Your task to perform on an android device: Clear all items from cart on amazon. Search for bose soundlink mini on amazon, select the first entry, and add it to the cart. Image 0: 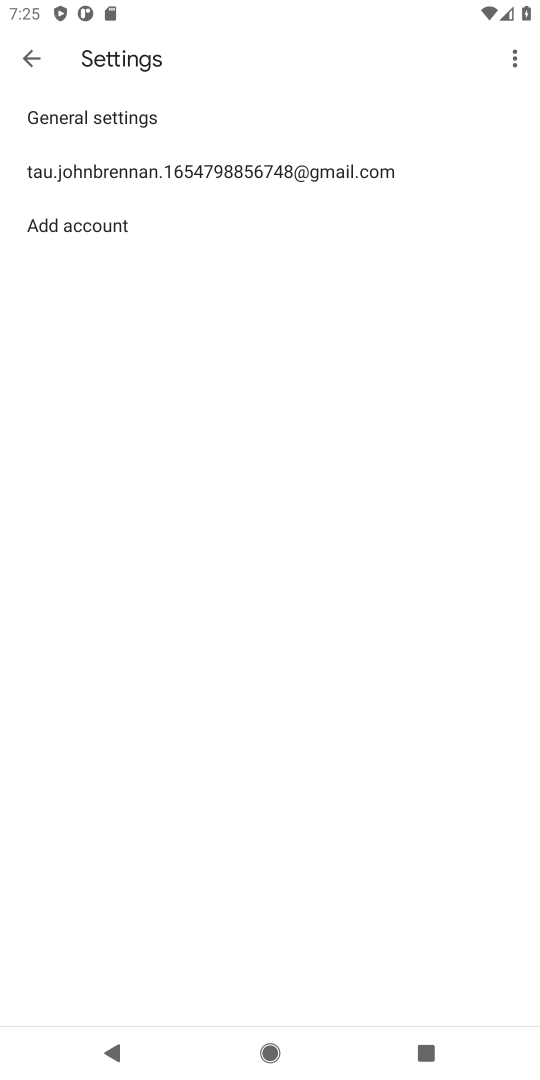
Step 0: press home button
Your task to perform on an android device: Clear all items from cart on amazon. Search for bose soundlink mini on amazon, select the first entry, and add it to the cart. Image 1: 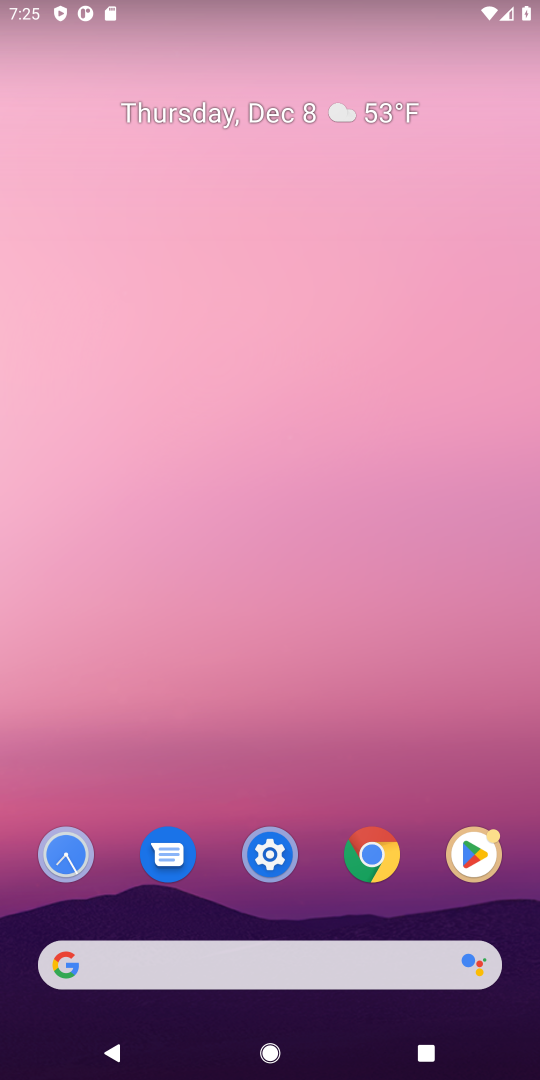
Step 1: click (100, 973)
Your task to perform on an android device: Clear all items from cart on amazon. Search for bose soundlink mini on amazon, select the first entry, and add it to the cart. Image 2: 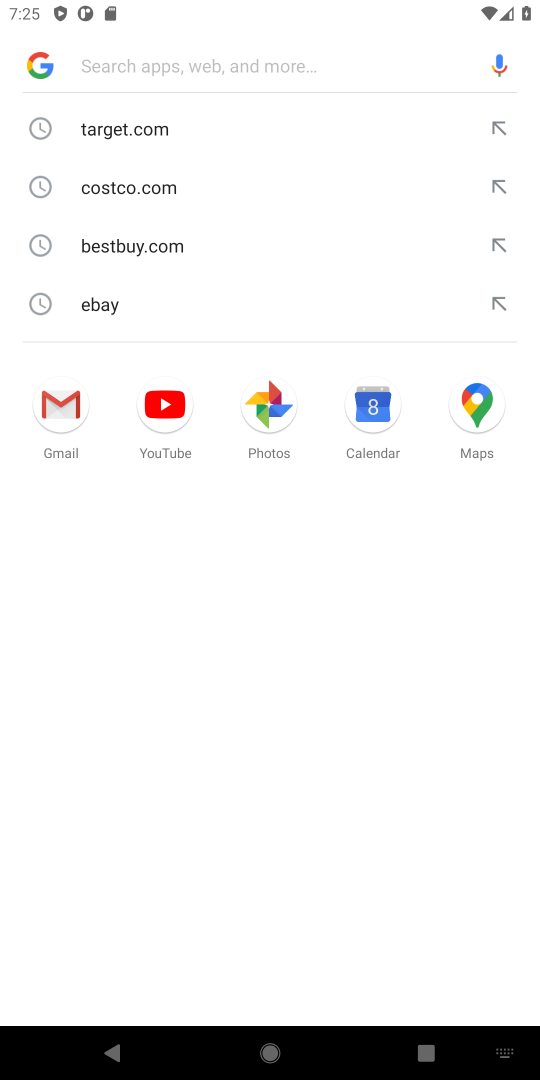
Step 2: type " amazon"
Your task to perform on an android device: Clear all items from cart on amazon. Search for bose soundlink mini on amazon, select the first entry, and add it to the cart. Image 3: 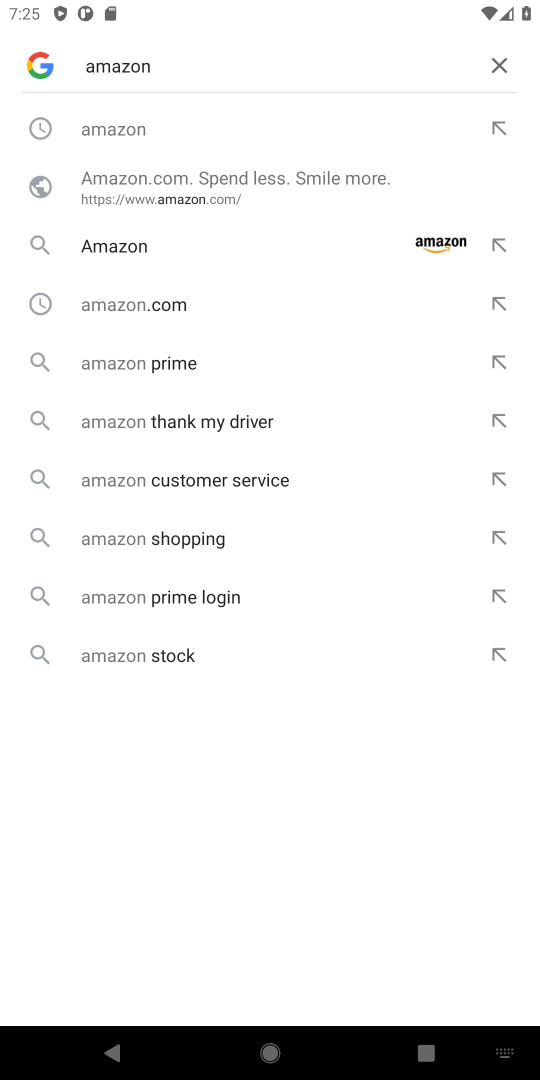
Step 3: press enter
Your task to perform on an android device: Clear all items from cart on amazon. Search for bose soundlink mini on amazon, select the first entry, and add it to the cart. Image 4: 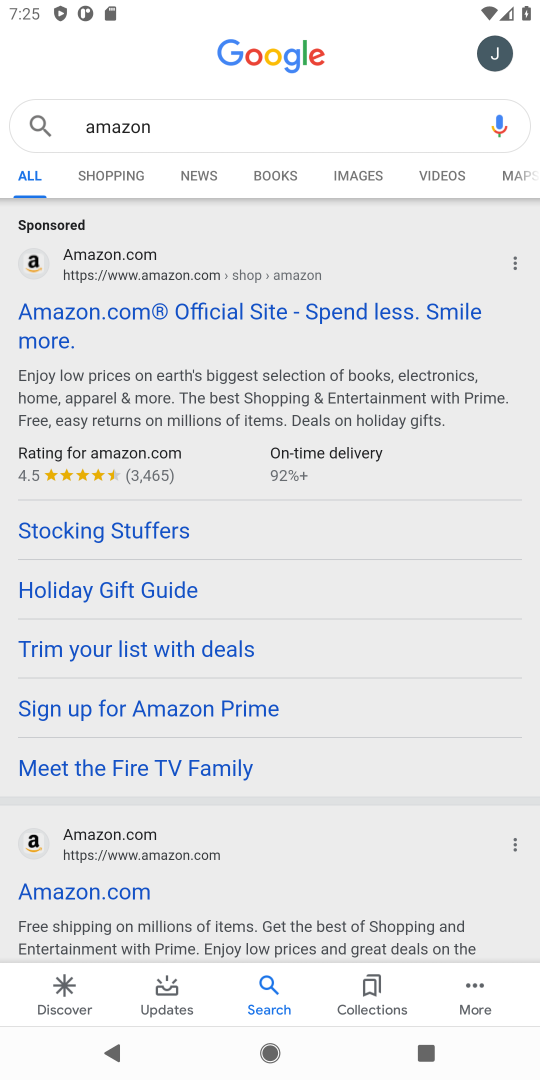
Step 4: click (393, 306)
Your task to perform on an android device: Clear all items from cart on amazon. Search for bose soundlink mini on amazon, select the first entry, and add it to the cart. Image 5: 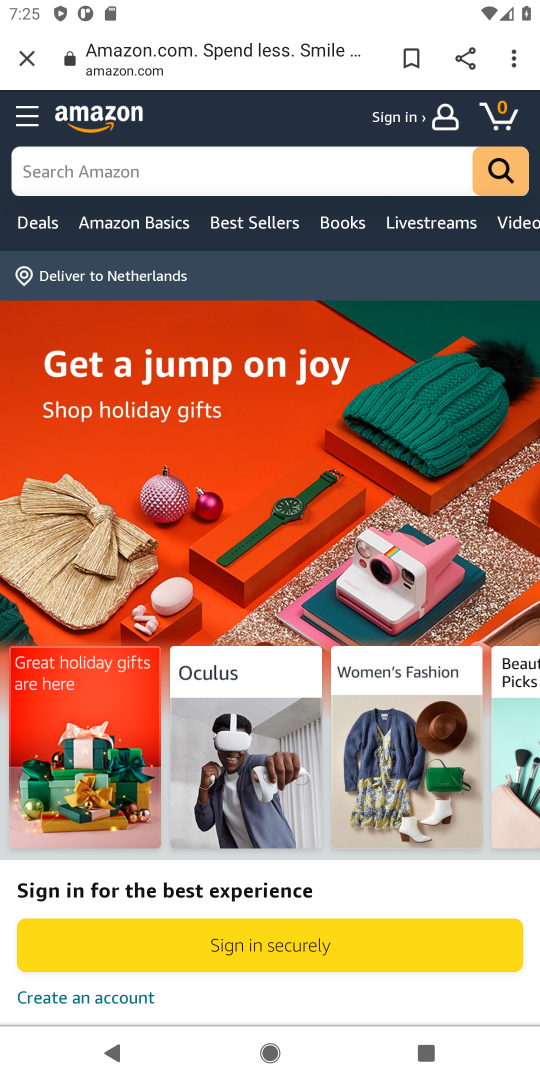
Step 5: click (498, 109)
Your task to perform on an android device: Clear all items from cart on amazon. Search for bose soundlink mini on amazon, select the first entry, and add it to the cart. Image 6: 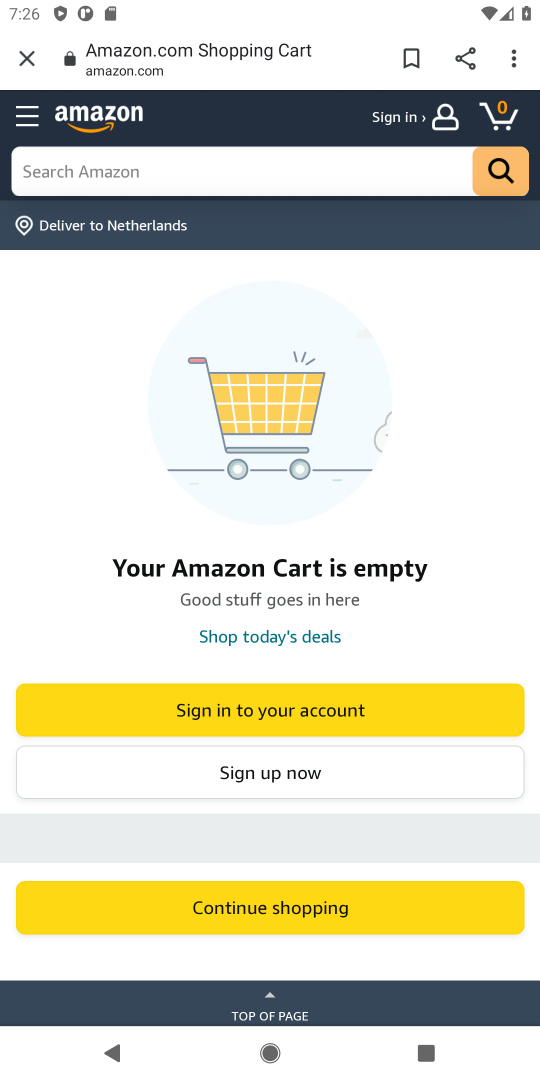
Step 6: click (177, 166)
Your task to perform on an android device: Clear all items from cart on amazon. Search for bose soundlink mini on amazon, select the first entry, and add it to the cart. Image 7: 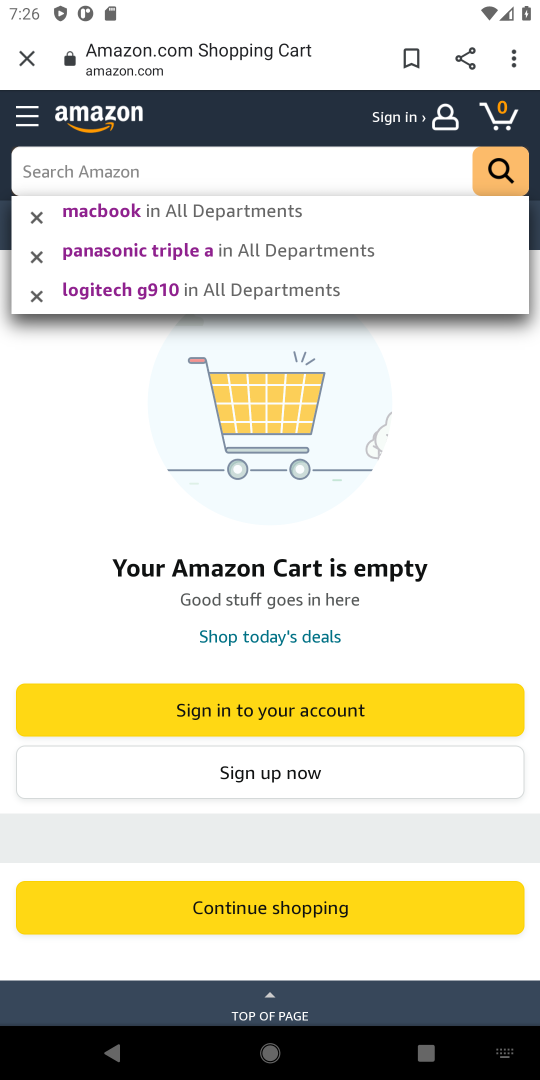
Step 7: type "bose soundlink mini"
Your task to perform on an android device: Clear all items from cart on amazon. Search for bose soundlink mini on amazon, select the first entry, and add it to the cart. Image 8: 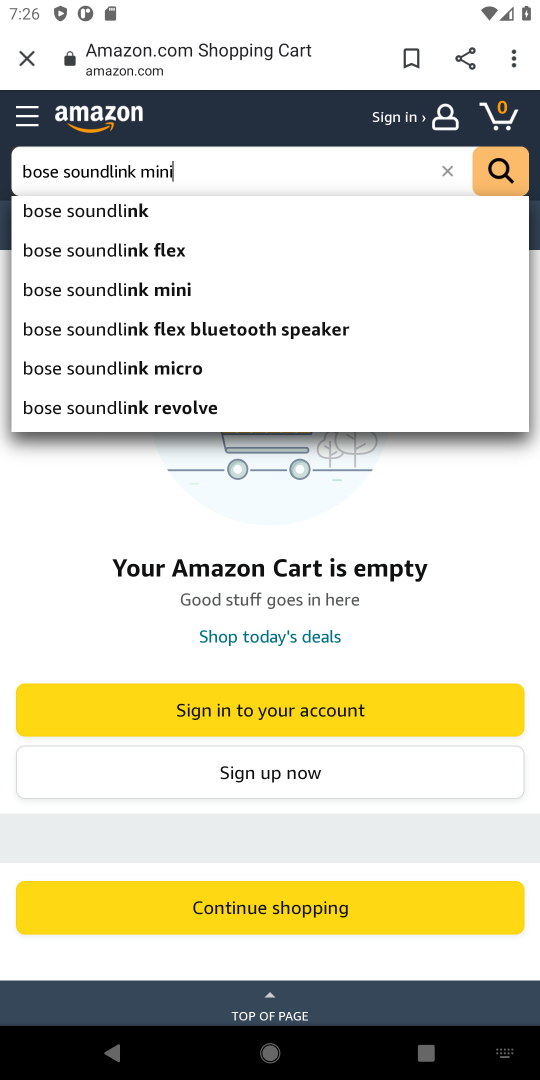
Step 8: press enter
Your task to perform on an android device: Clear all items from cart on amazon. Search for bose soundlink mini on amazon, select the first entry, and add it to the cart. Image 9: 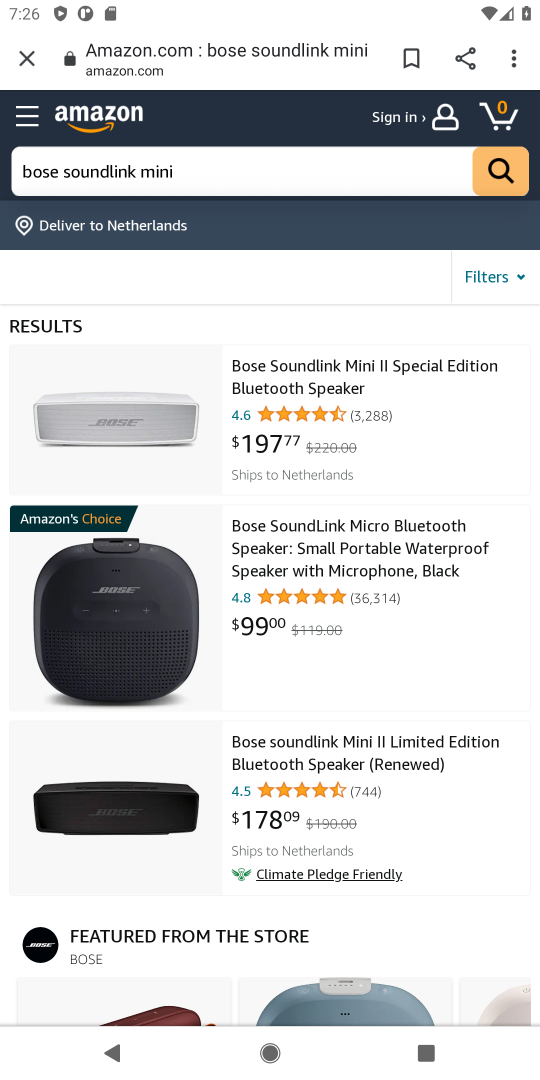
Step 9: click (317, 392)
Your task to perform on an android device: Clear all items from cart on amazon. Search for bose soundlink mini on amazon, select the first entry, and add it to the cart. Image 10: 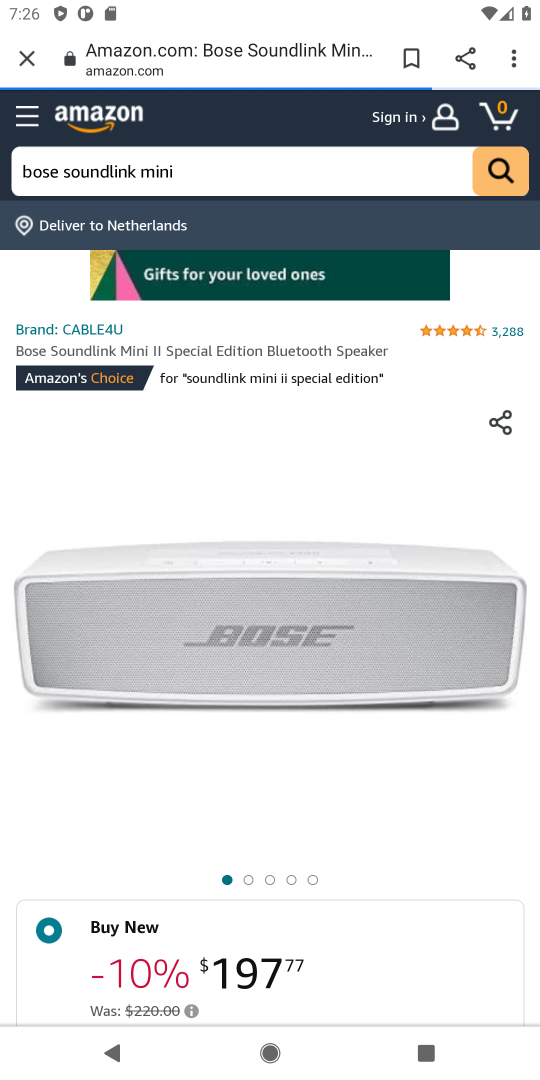
Step 10: drag from (451, 873) to (430, 452)
Your task to perform on an android device: Clear all items from cart on amazon. Search for bose soundlink mini on amazon, select the first entry, and add it to the cart. Image 11: 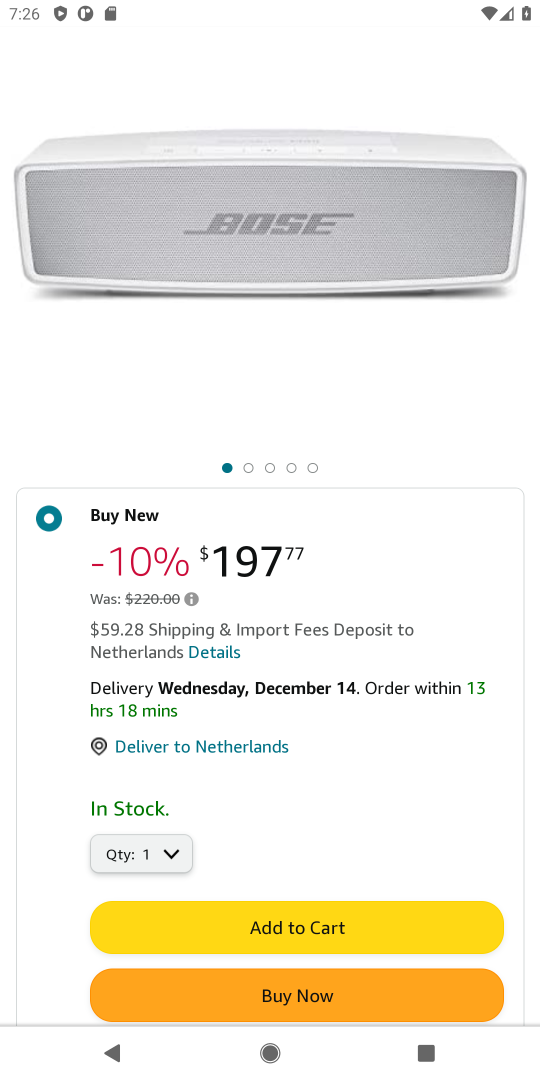
Step 11: drag from (411, 804) to (397, 300)
Your task to perform on an android device: Clear all items from cart on amazon. Search for bose soundlink mini on amazon, select the first entry, and add it to the cart. Image 12: 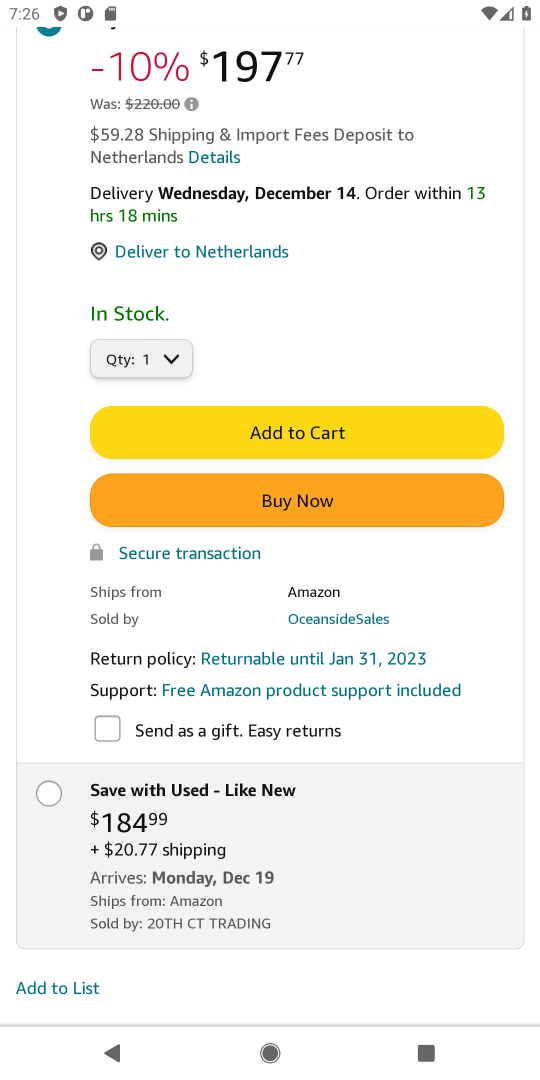
Step 12: click (289, 427)
Your task to perform on an android device: Clear all items from cart on amazon. Search for bose soundlink mini on amazon, select the first entry, and add it to the cart. Image 13: 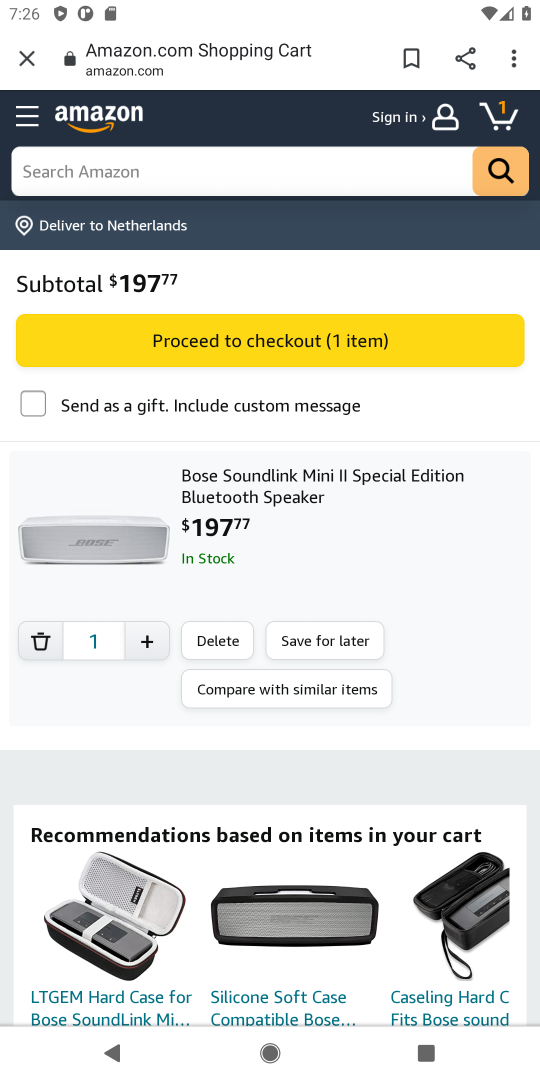
Step 13: task complete